Your task to perform on an android device: turn off airplane mode Image 0: 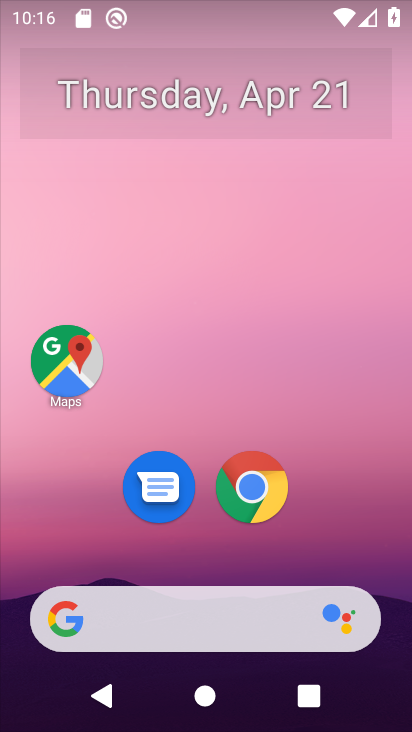
Step 0: drag from (373, 490) to (349, 152)
Your task to perform on an android device: turn off airplane mode Image 1: 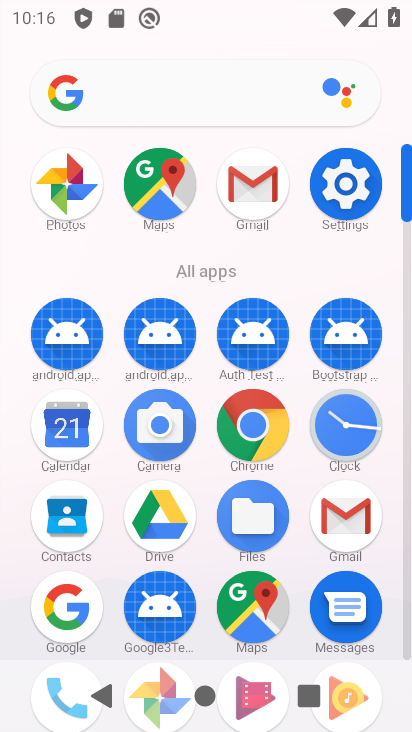
Step 1: click (345, 180)
Your task to perform on an android device: turn off airplane mode Image 2: 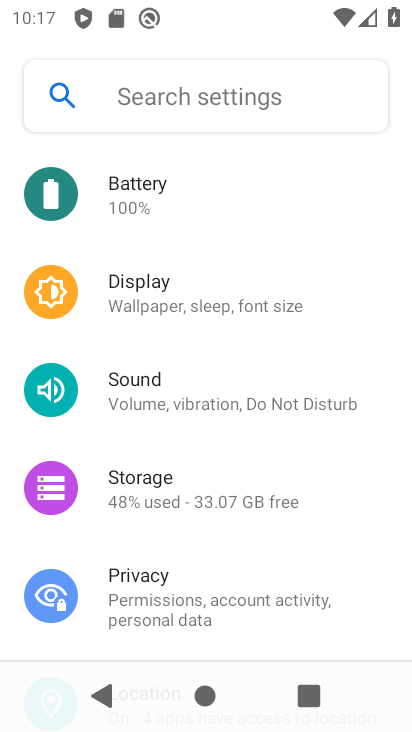
Step 2: drag from (286, 520) to (329, 289)
Your task to perform on an android device: turn off airplane mode Image 3: 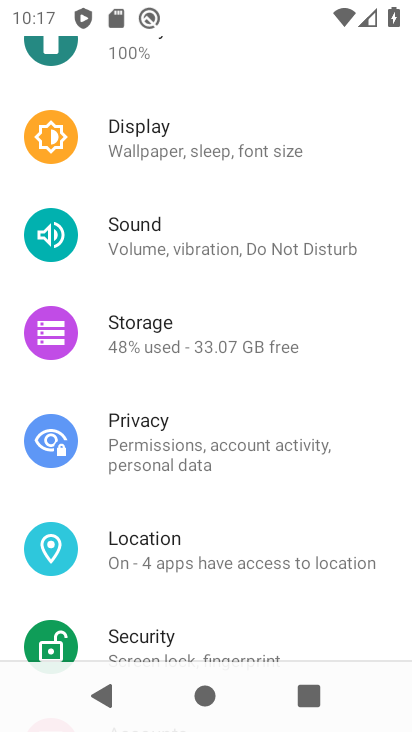
Step 3: drag from (313, 590) to (336, 339)
Your task to perform on an android device: turn off airplane mode Image 4: 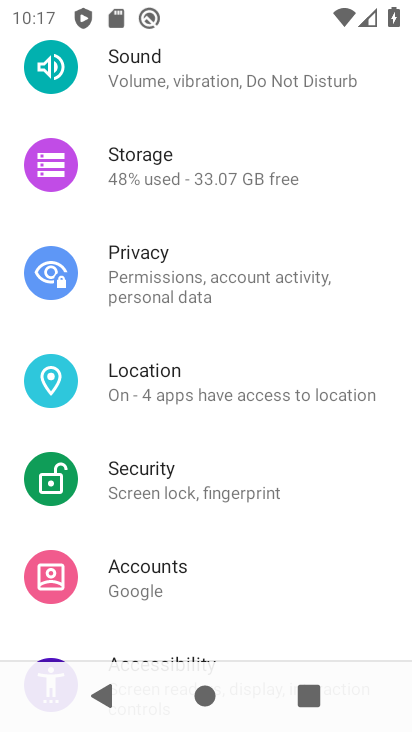
Step 4: drag from (316, 122) to (287, 566)
Your task to perform on an android device: turn off airplane mode Image 5: 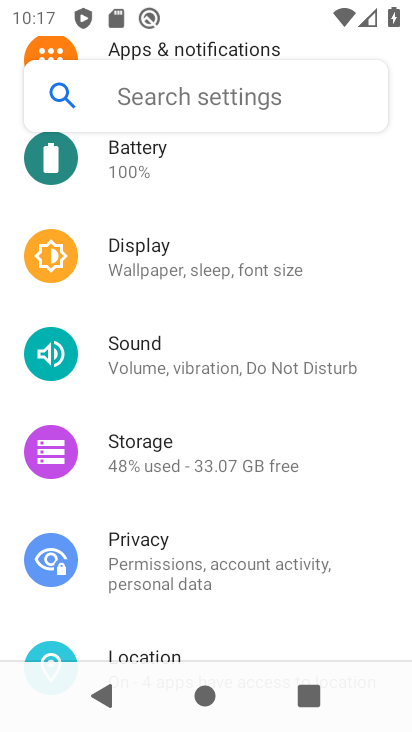
Step 5: drag from (296, 235) to (273, 625)
Your task to perform on an android device: turn off airplane mode Image 6: 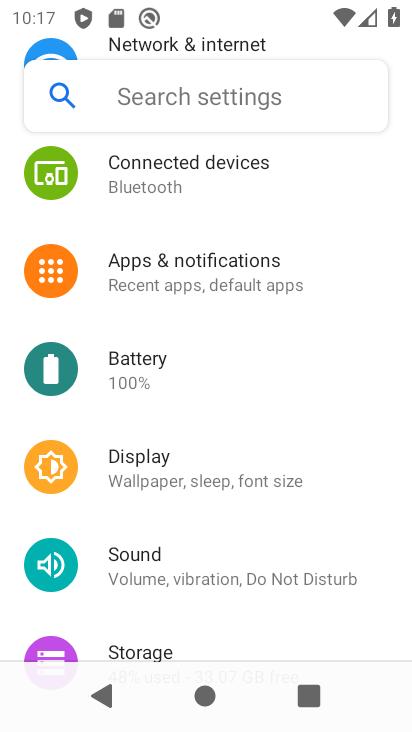
Step 6: drag from (304, 210) to (283, 611)
Your task to perform on an android device: turn off airplane mode Image 7: 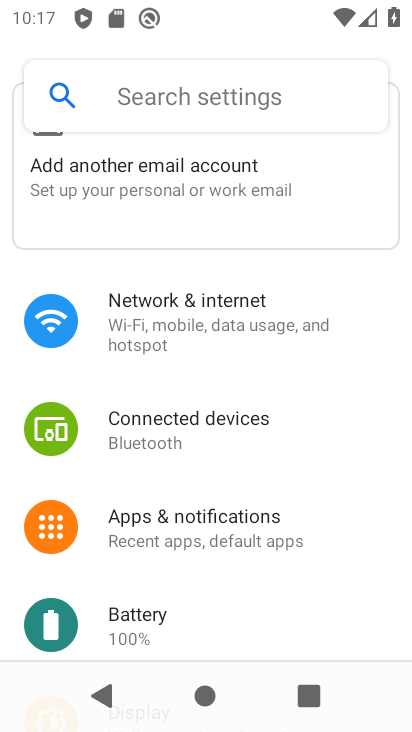
Step 7: click (209, 314)
Your task to perform on an android device: turn off airplane mode Image 8: 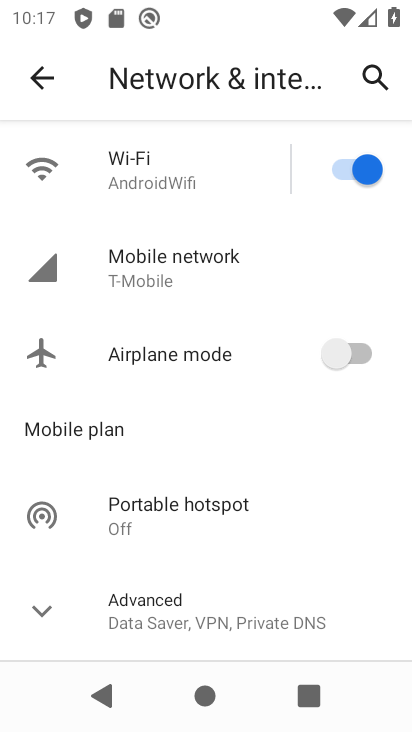
Step 8: task complete